Your task to perform on an android device: Go to network settings Image 0: 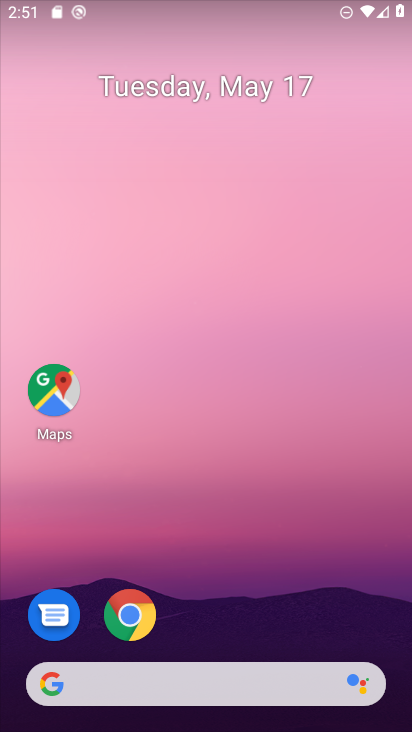
Step 0: drag from (215, 730) to (198, 173)
Your task to perform on an android device: Go to network settings Image 1: 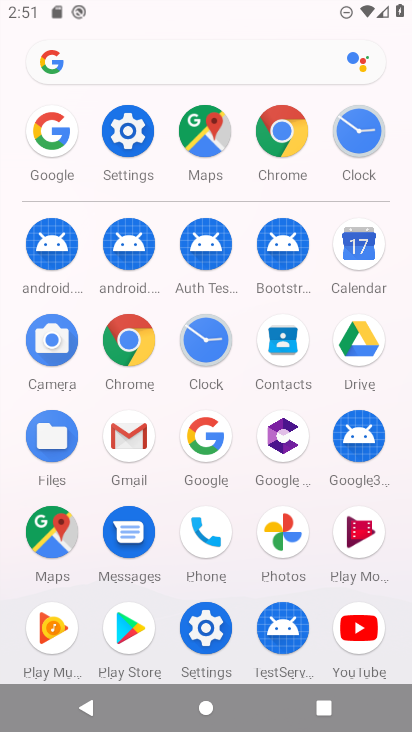
Step 1: click (126, 140)
Your task to perform on an android device: Go to network settings Image 2: 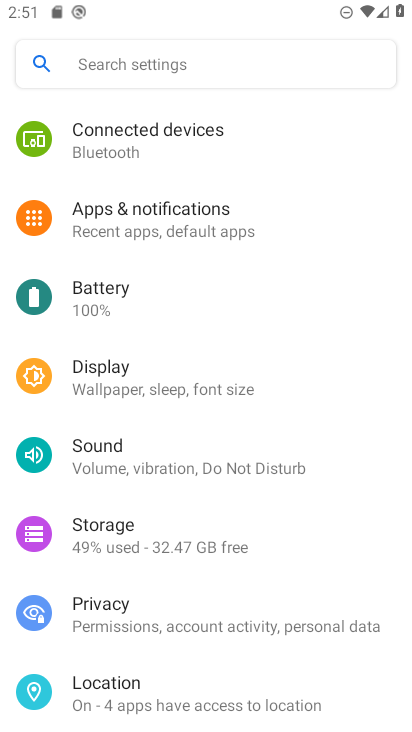
Step 2: drag from (157, 157) to (172, 576)
Your task to perform on an android device: Go to network settings Image 3: 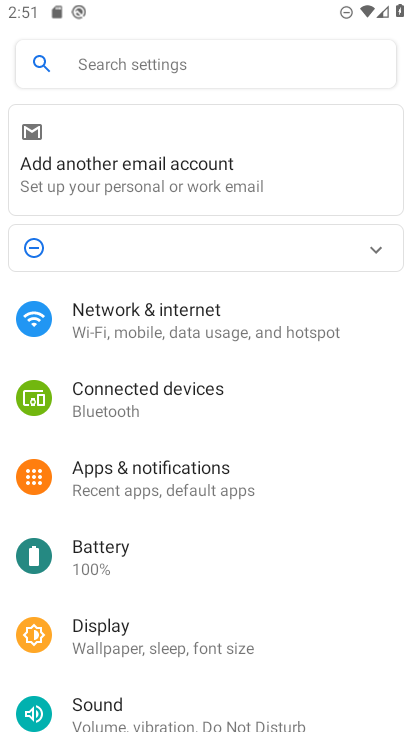
Step 3: click (142, 335)
Your task to perform on an android device: Go to network settings Image 4: 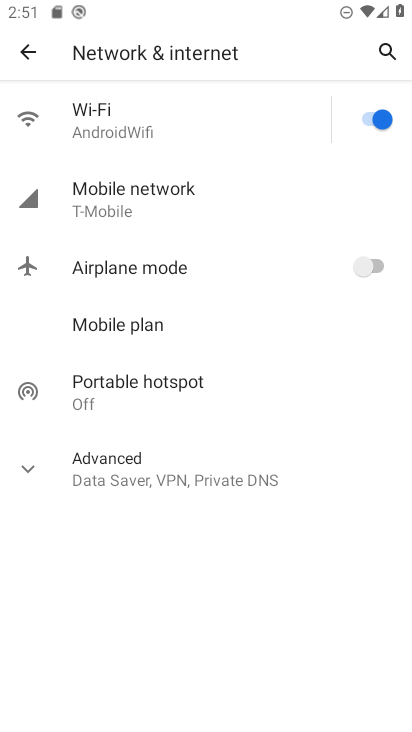
Step 4: task complete